Your task to perform on an android device: stop showing notifications on the lock screen Image 0: 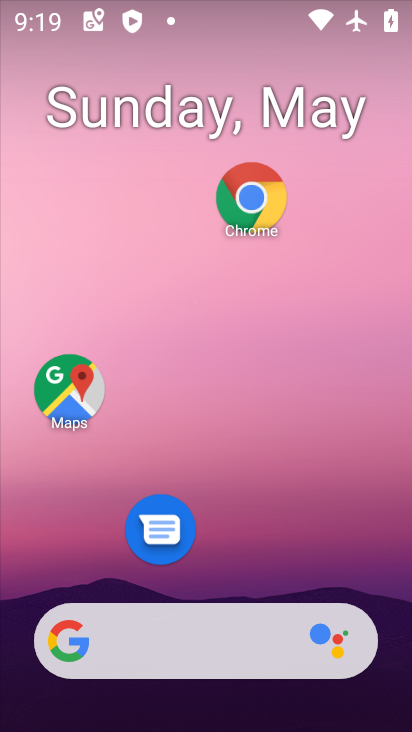
Step 0: drag from (260, 568) to (264, 73)
Your task to perform on an android device: stop showing notifications on the lock screen Image 1: 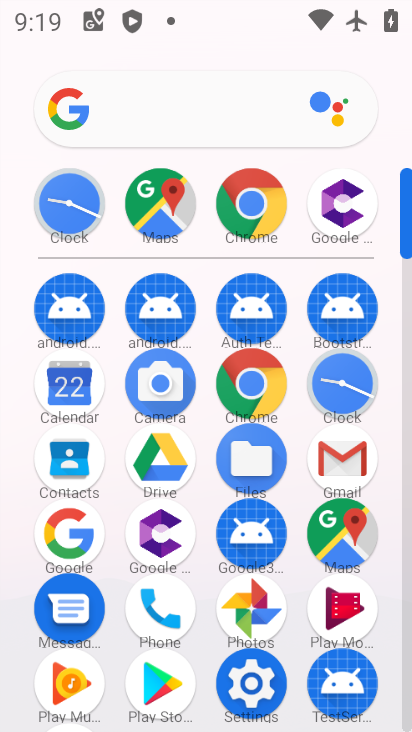
Step 1: click (248, 669)
Your task to perform on an android device: stop showing notifications on the lock screen Image 2: 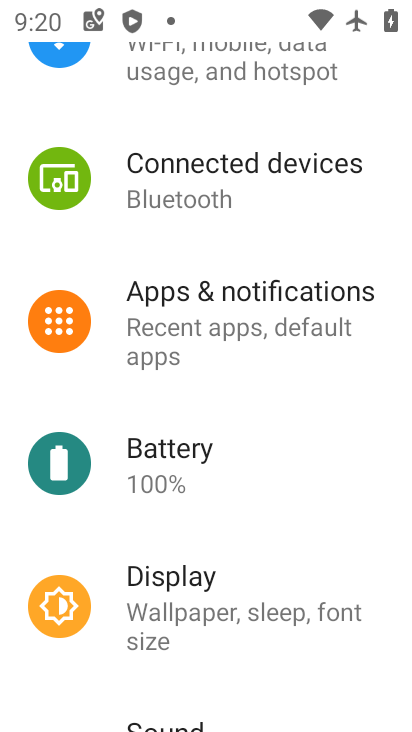
Step 2: click (214, 306)
Your task to perform on an android device: stop showing notifications on the lock screen Image 3: 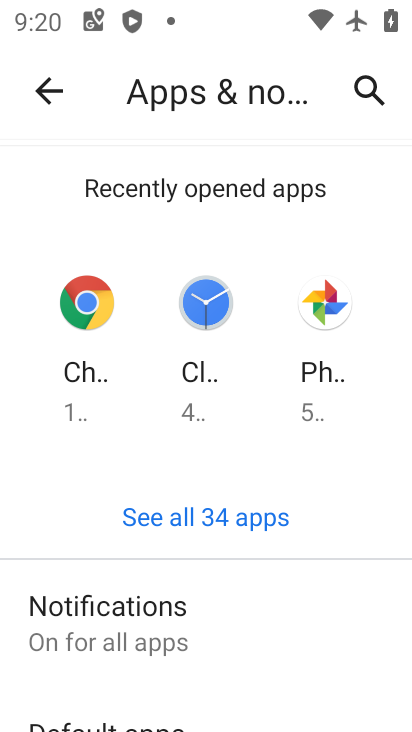
Step 3: click (166, 617)
Your task to perform on an android device: stop showing notifications on the lock screen Image 4: 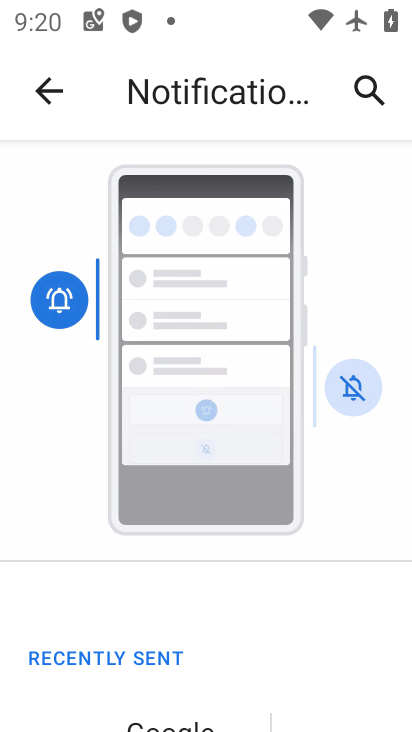
Step 4: drag from (181, 646) to (196, 353)
Your task to perform on an android device: stop showing notifications on the lock screen Image 5: 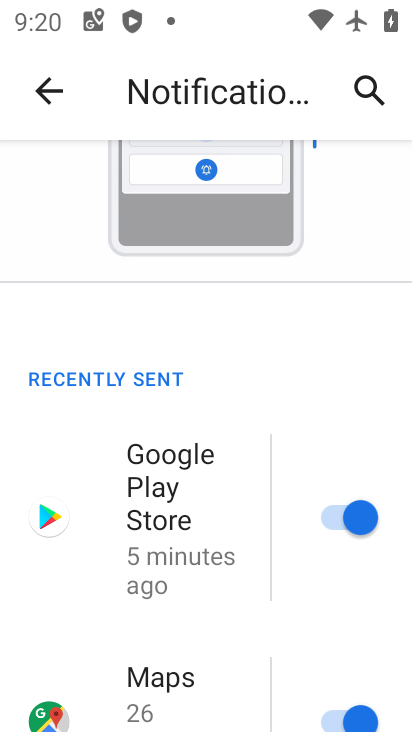
Step 5: drag from (165, 398) to (177, 261)
Your task to perform on an android device: stop showing notifications on the lock screen Image 6: 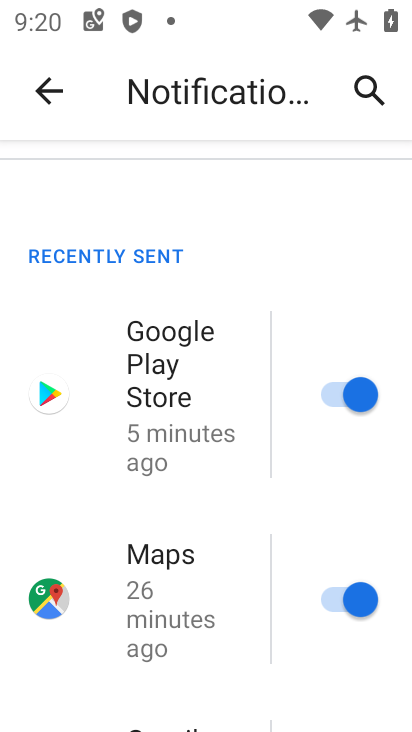
Step 6: drag from (200, 669) to (206, 396)
Your task to perform on an android device: stop showing notifications on the lock screen Image 7: 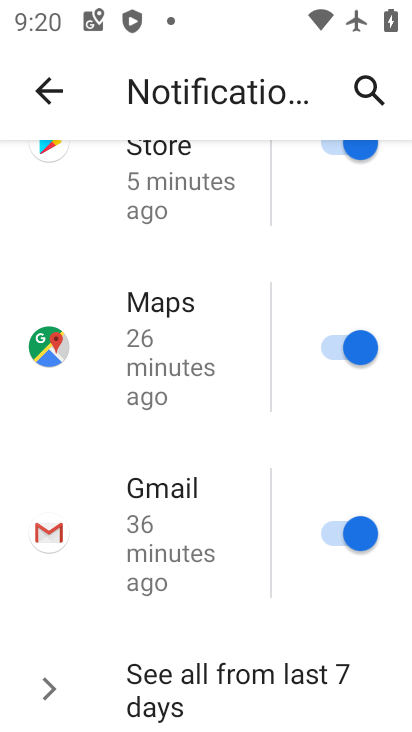
Step 7: drag from (242, 646) to (243, 374)
Your task to perform on an android device: stop showing notifications on the lock screen Image 8: 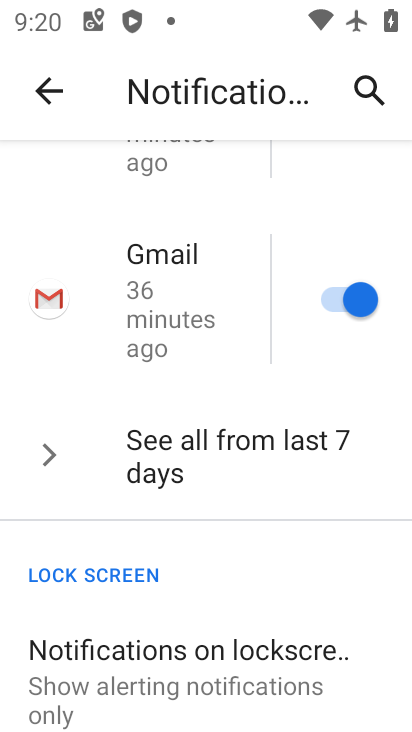
Step 8: drag from (250, 682) to (224, 336)
Your task to perform on an android device: stop showing notifications on the lock screen Image 9: 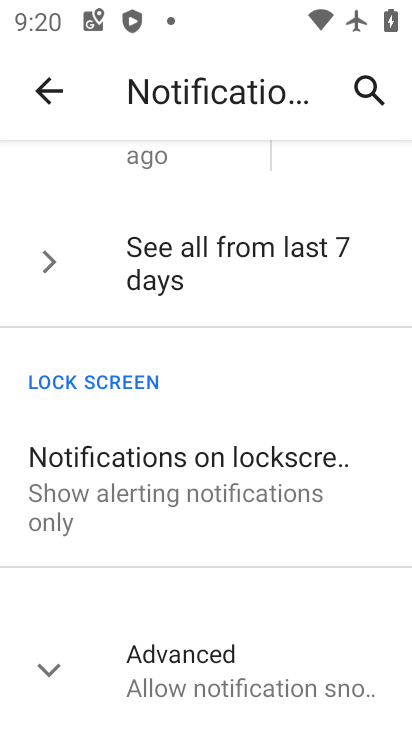
Step 9: click (263, 492)
Your task to perform on an android device: stop showing notifications on the lock screen Image 10: 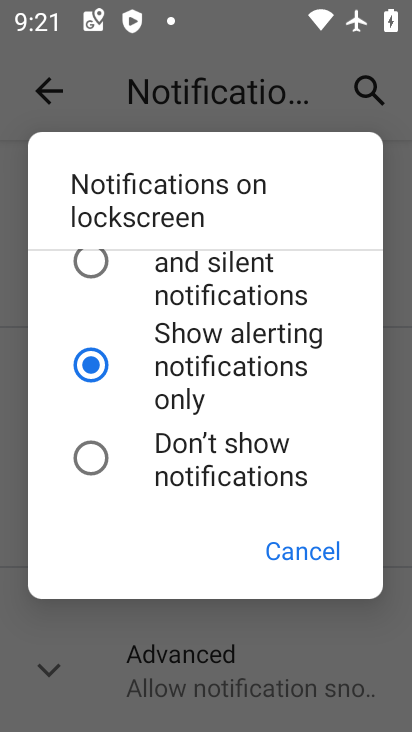
Step 10: click (195, 473)
Your task to perform on an android device: stop showing notifications on the lock screen Image 11: 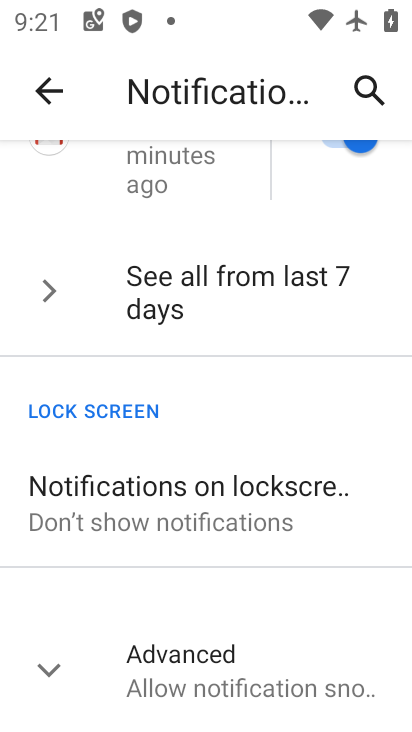
Step 11: task complete